Your task to perform on an android device: turn off sleep mode Image 0: 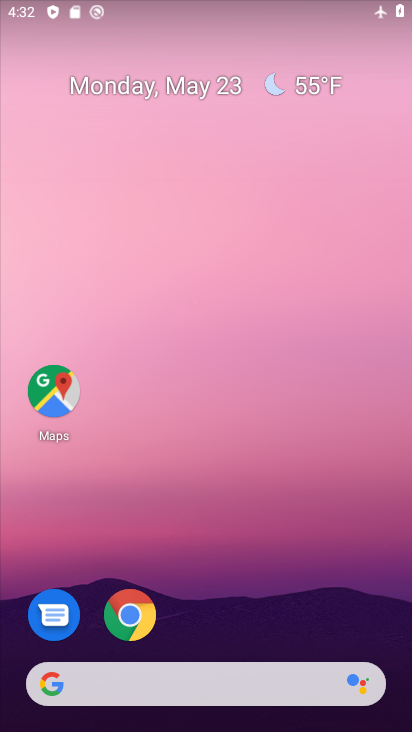
Step 0: drag from (378, 630) to (383, 319)
Your task to perform on an android device: turn off sleep mode Image 1: 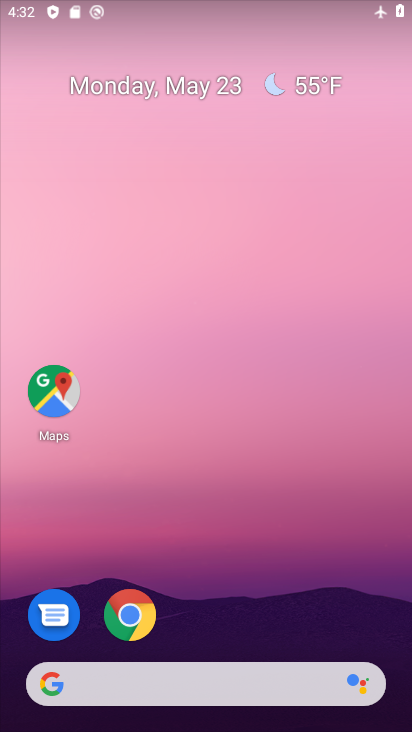
Step 1: drag from (343, 594) to (362, 176)
Your task to perform on an android device: turn off sleep mode Image 2: 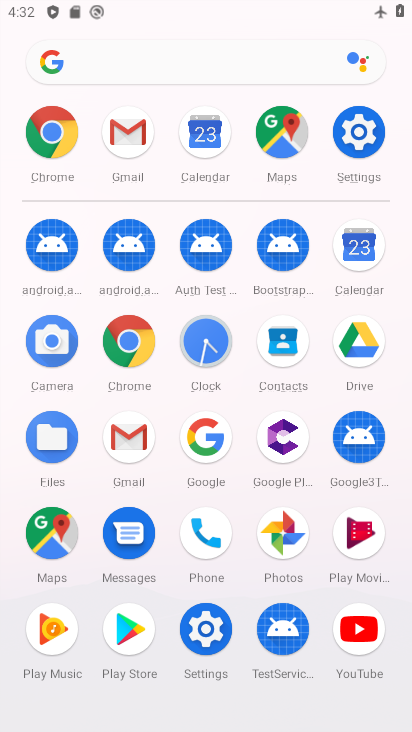
Step 2: click (364, 151)
Your task to perform on an android device: turn off sleep mode Image 3: 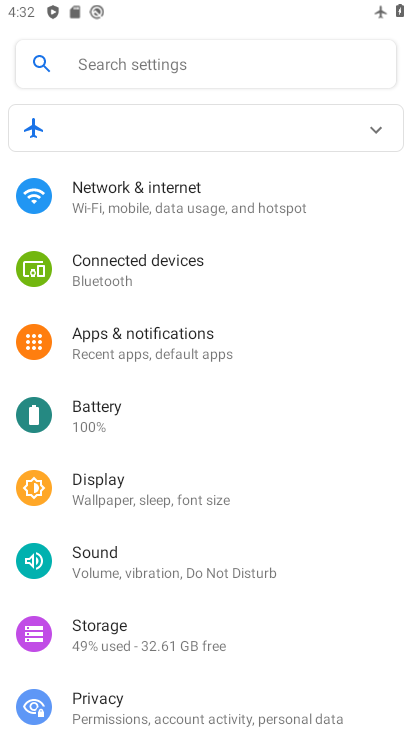
Step 3: drag from (340, 489) to (355, 391)
Your task to perform on an android device: turn off sleep mode Image 4: 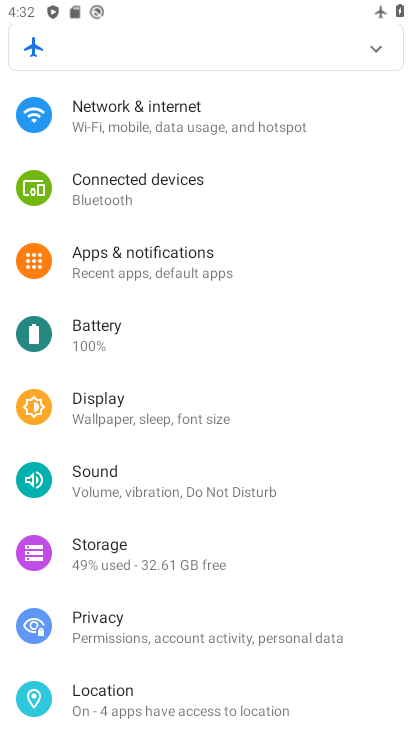
Step 4: drag from (348, 506) to (348, 415)
Your task to perform on an android device: turn off sleep mode Image 5: 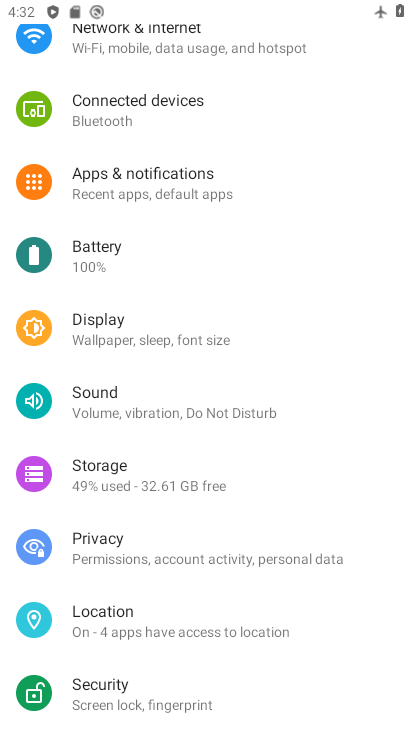
Step 5: drag from (349, 576) to (368, 437)
Your task to perform on an android device: turn off sleep mode Image 6: 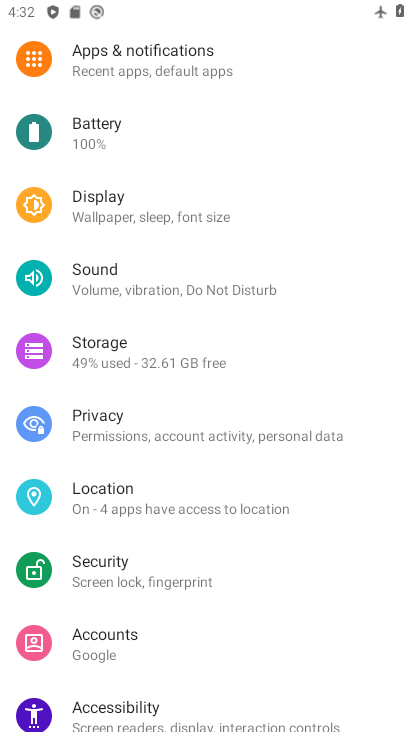
Step 6: drag from (365, 610) to (376, 472)
Your task to perform on an android device: turn off sleep mode Image 7: 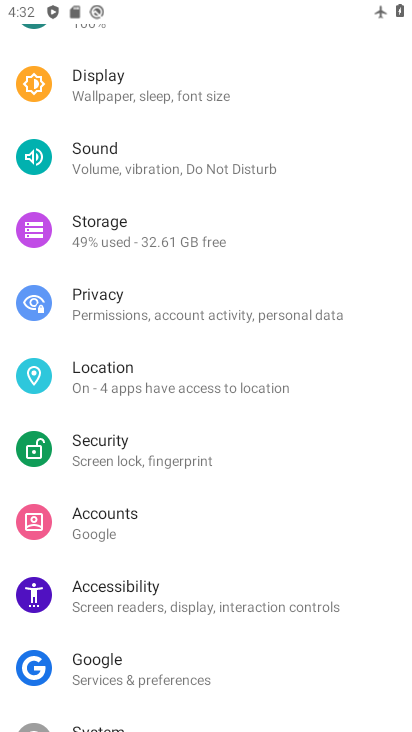
Step 7: drag from (367, 646) to (372, 512)
Your task to perform on an android device: turn off sleep mode Image 8: 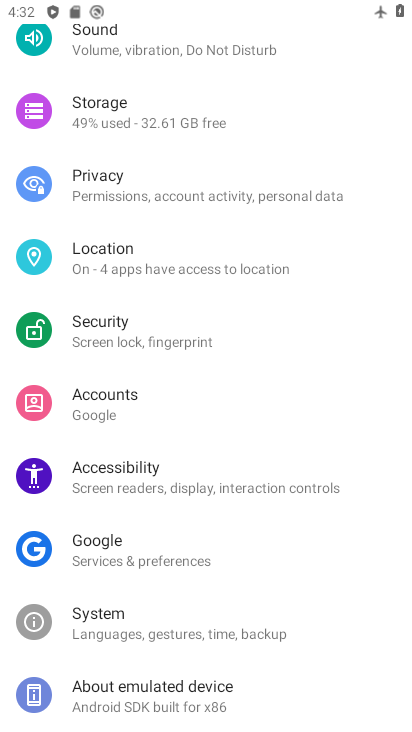
Step 8: drag from (361, 658) to (371, 527)
Your task to perform on an android device: turn off sleep mode Image 9: 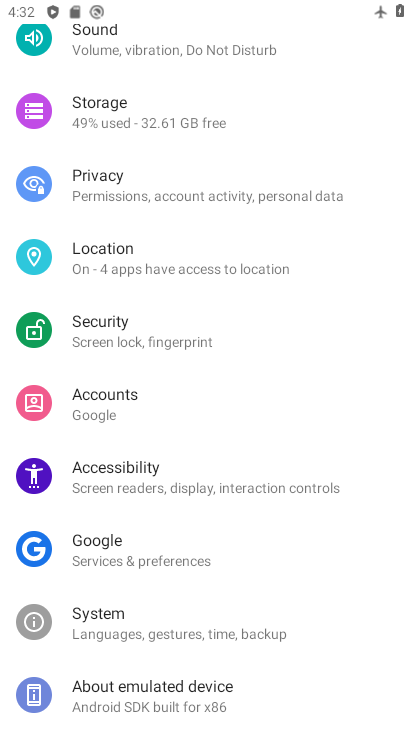
Step 9: drag from (373, 406) to (365, 481)
Your task to perform on an android device: turn off sleep mode Image 10: 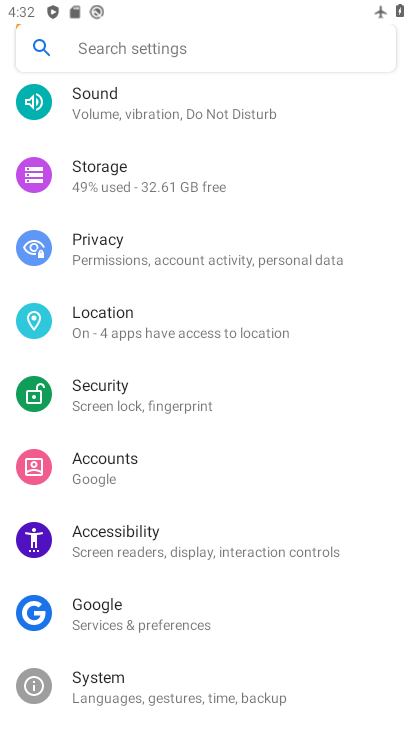
Step 10: drag from (369, 375) to (361, 488)
Your task to perform on an android device: turn off sleep mode Image 11: 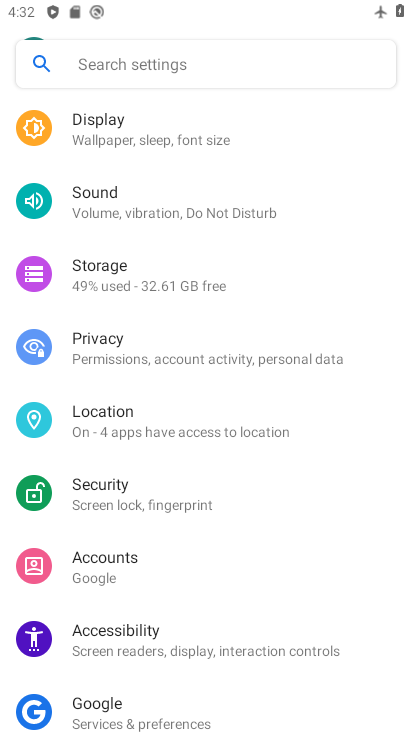
Step 11: drag from (374, 339) to (369, 457)
Your task to perform on an android device: turn off sleep mode Image 12: 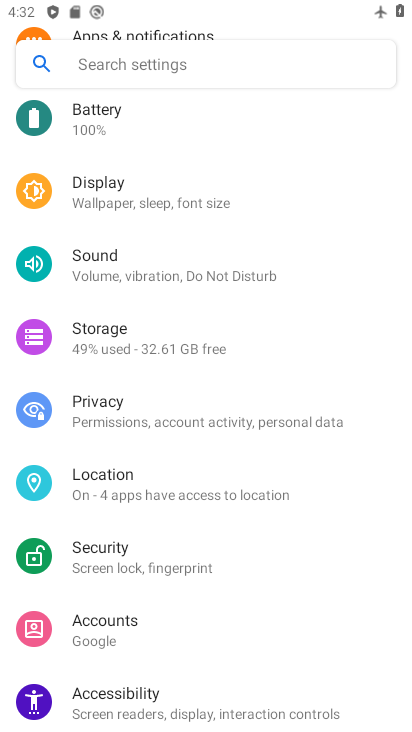
Step 12: drag from (356, 310) to (351, 473)
Your task to perform on an android device: turn off sleep mode Image 13: 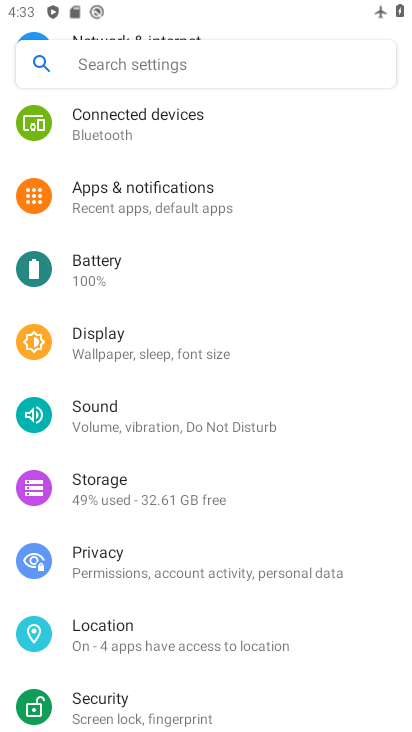
Step 13: drag from (333, 268) to (334, 432)
Your task to perform on an android device: turn off sleep mode Image 14: 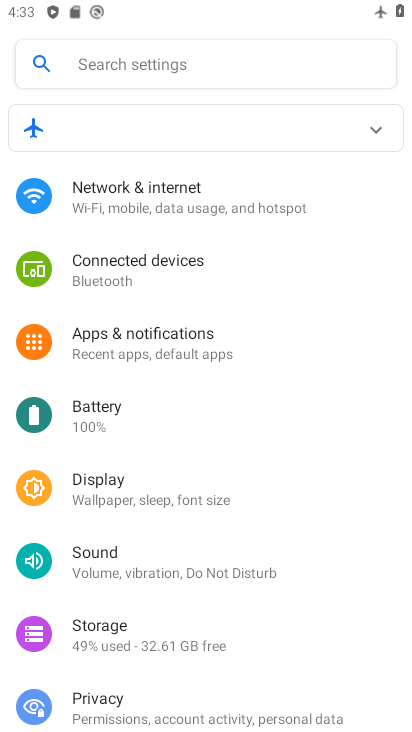
Step 14: drag from (332, 293) to (320, 382)
Your task to perform on an android device: turn off sleep mode Image 15: 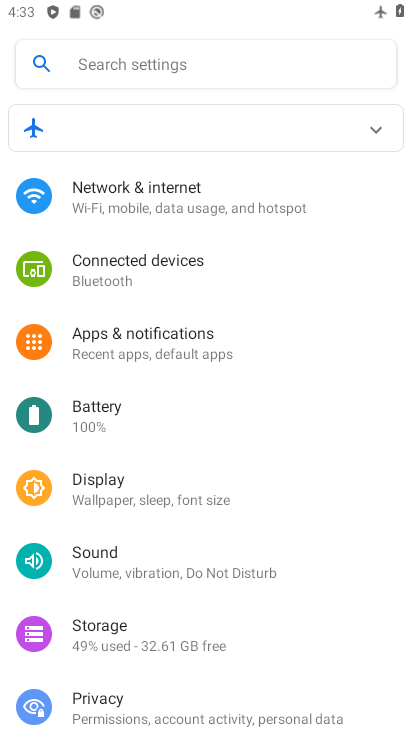
Step 15: click (227, 497)
Your task to perform on an android device: turn off sleep mode Image 16: 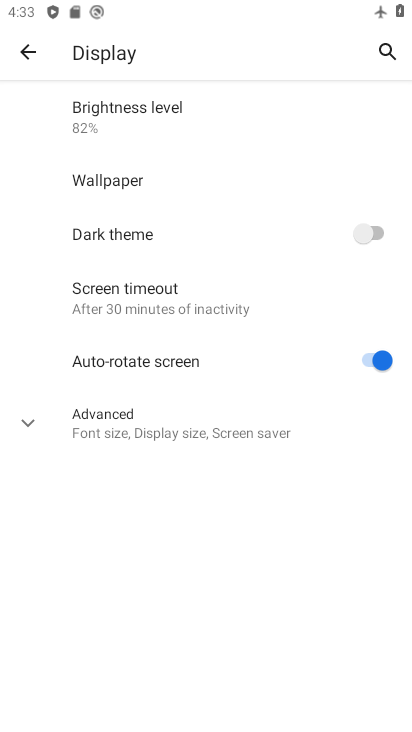
Step 16: click (271, 440)
Your task to perform on an android device: turn off sleep mode Image 17: 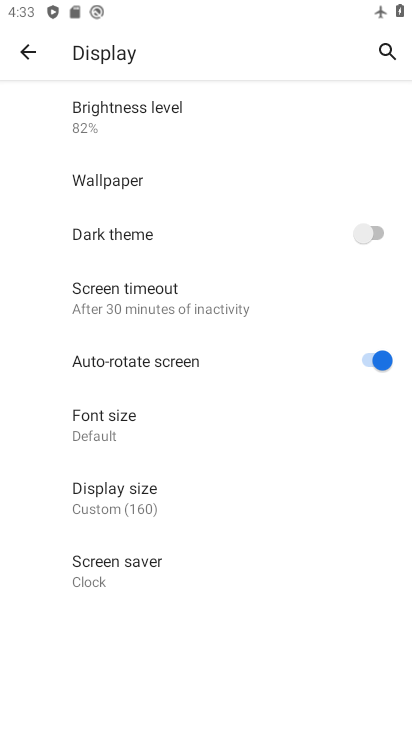
Step 17: task complete